Your task to perform on an android device: Open Google Chrome and open the bookmarks view Image 0: 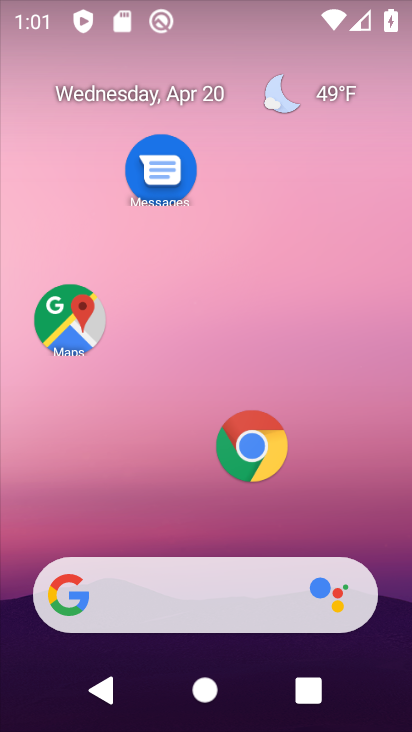
Step 0: click (70, 315)
Your task to perform on an android device: Open Google Chrome and open the bookmarks view Image 1: 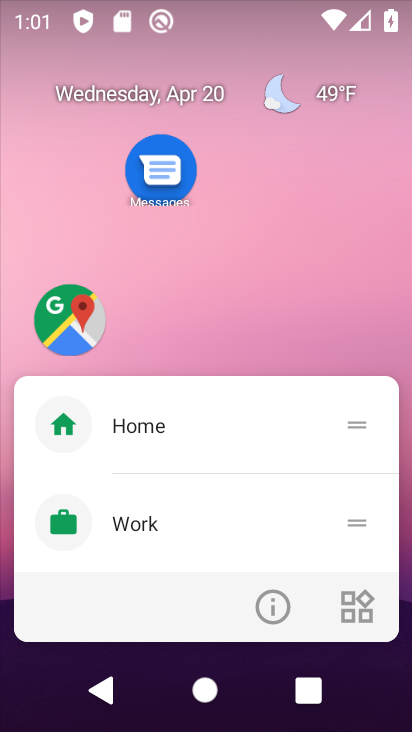
Step 1: click (229, 313)
Your task to perform on an android device: Open Google Chrome and open the bookmarks view Image 2: 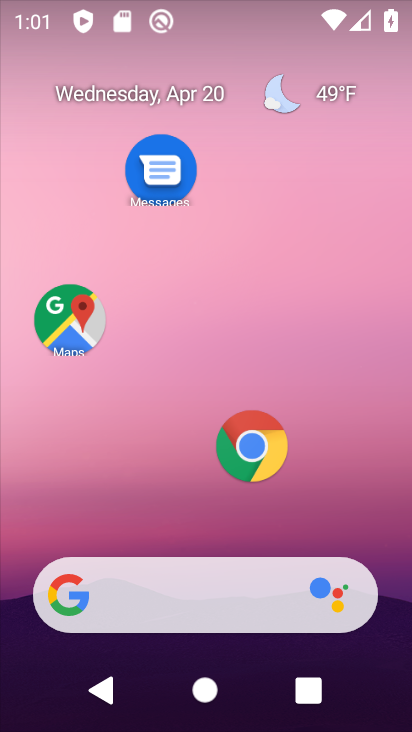
Step 2: click (250, 439)
Your task to perform on an android device: Open Google Chrome and open the bookmarks view Image 3: 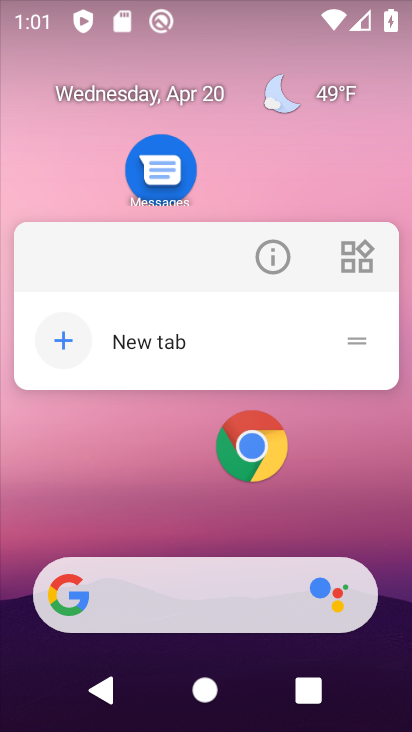
Step 3: click (247, 445)
Your task to perform on an android device: Open Google Chrome and open the bookmarks view Image 4: 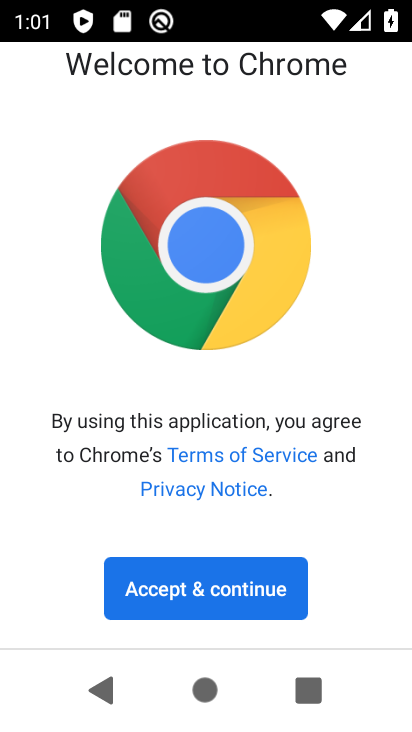
Step 4: click (193, 576)
Your task to perform on an android device: Open Google Chrome and open the bookmarks view Image 5: 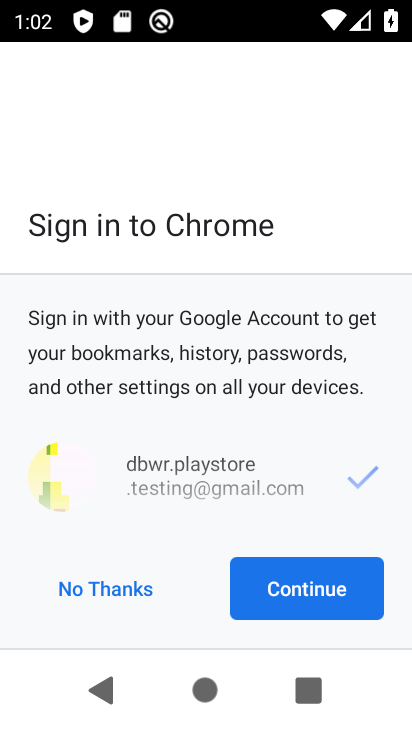
Step 5: click (349, 571)
Your task to perform on an android device: Open Google Chrome and open the bookmarks view Image 6: 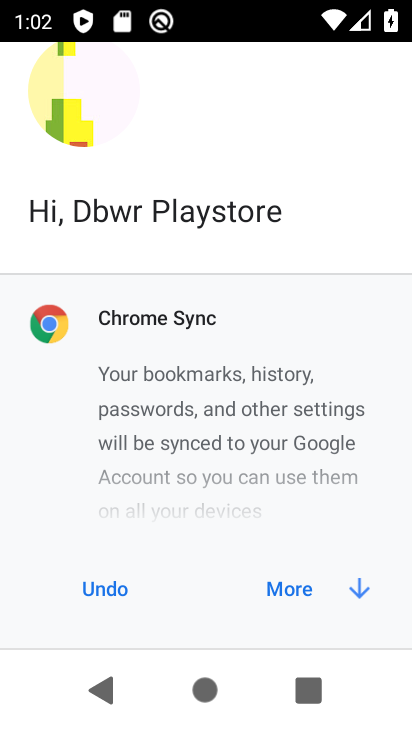
Step 6: click (292, 583)
Your task to perform on an android device: Open Google Chrome and open the bookmarks view Image 7: 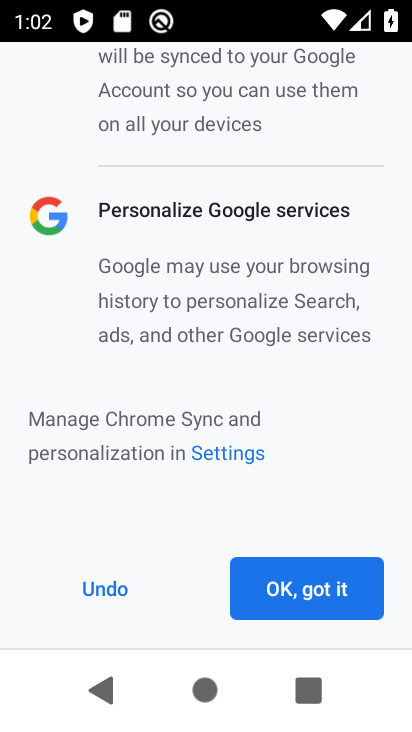
Step 7: click (298, 597)
Your task to perform on an android device: Open Google Chrome and open the bookmarks view Image 8: 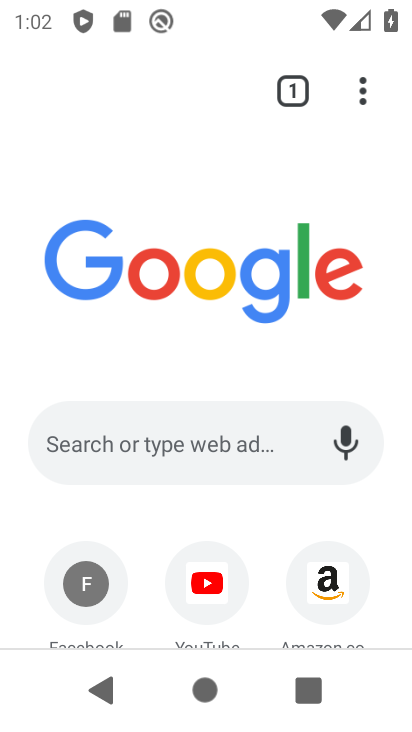
Step 8: click (360, 86)
Your task to perform on an android device: Open Google Chrome and open the bookmarks view Image 9: 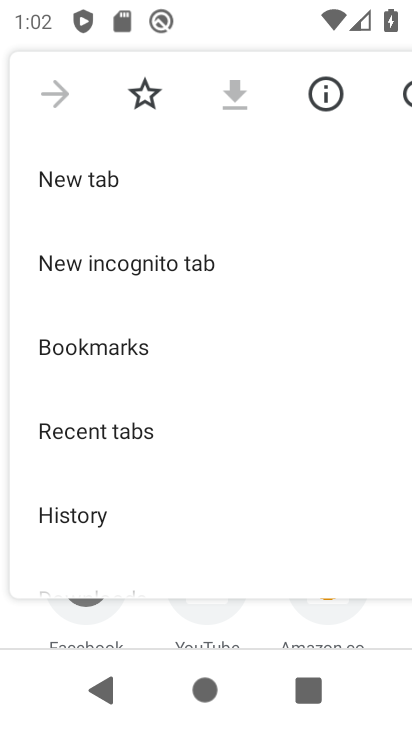
Step 9: click (154, 349)
Your task to perform on an android device: Open Google Chrome and open the bookmarks view Image 10: 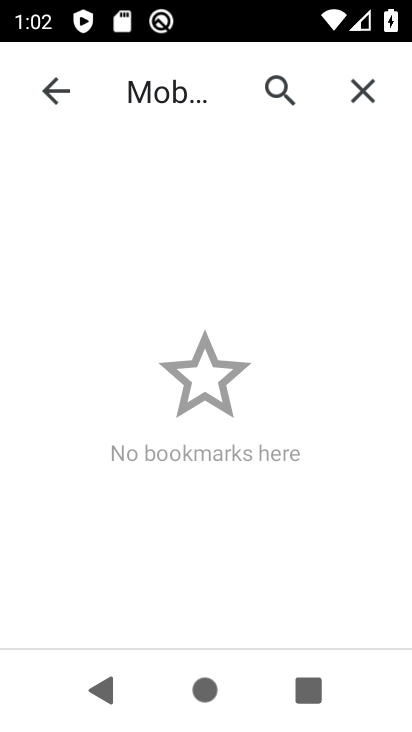
Step 10: task complete